Your task to perform on an android device: What's on my calendar tomorrow? Image 0: 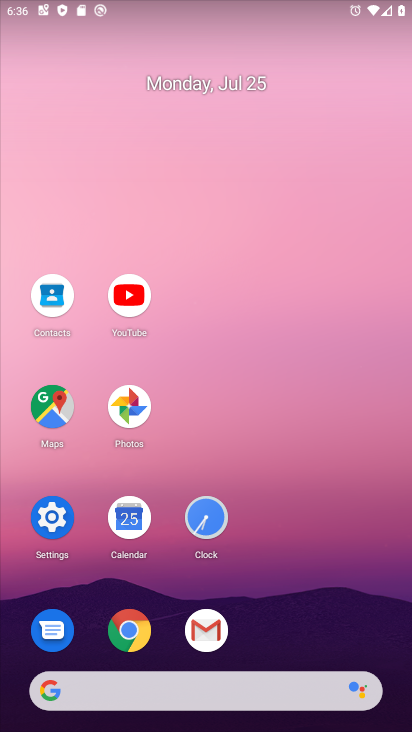
Step 0: click (131, 515)
Your task to perform on an android device: What's on my calendar tomorrow? Image 1: 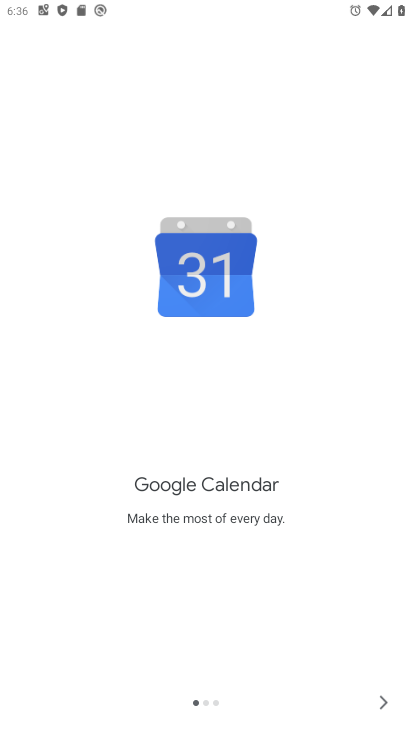
Step 1: click (382, 705)
Your task to perform on an android device: What's on my calendar tomorrow? Image 2: 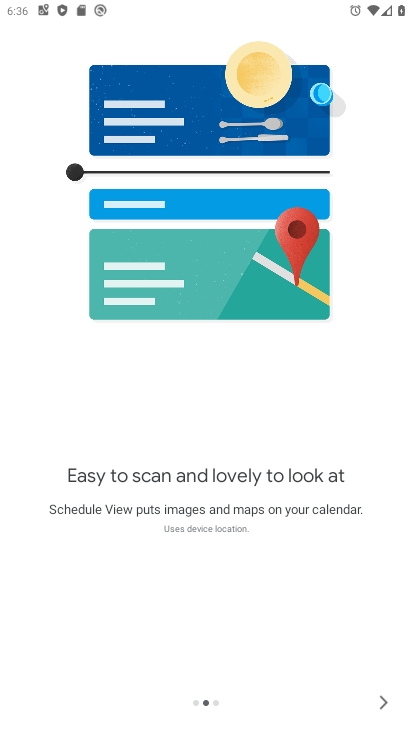
Step 2: click (382, 705)
Your task to perform on an android device: What's on my calendar tomorrow? Image 3: 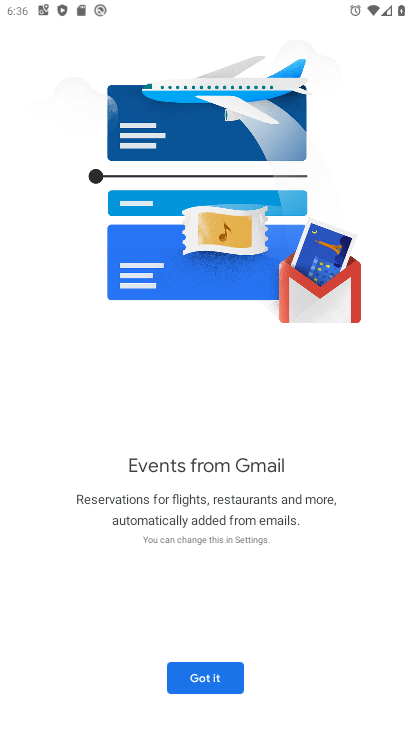
Step 3: click (209, 676)
Your task to perform on an android device: What's on my calendar tomorrow? Image 4: 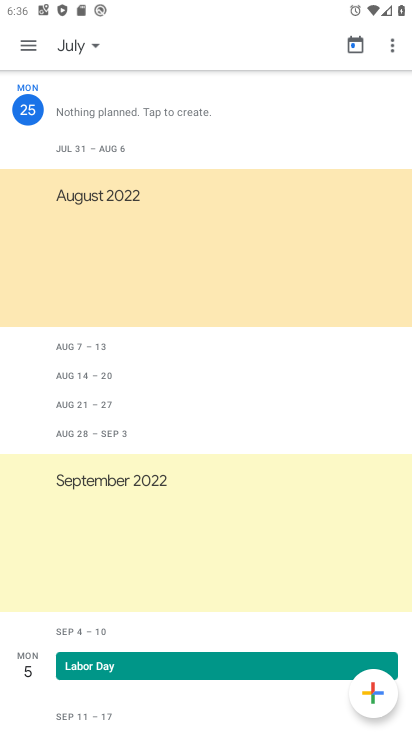
Step 4: click (97, 44)
Your task to perform on an android device: What's on my calendar tomorrow? Image 5: 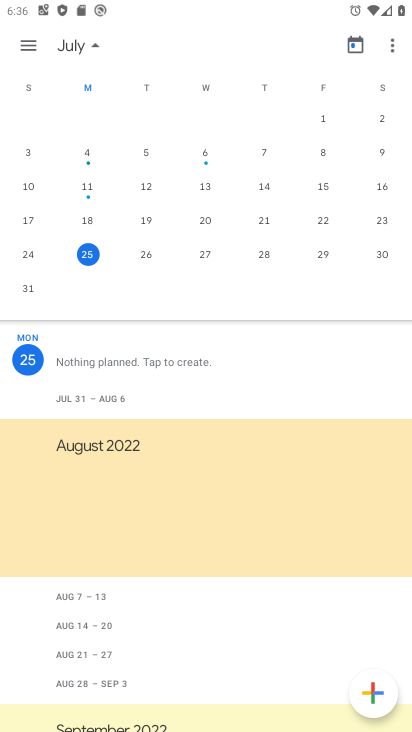
Step 5: click (141, 249)
Your task to perform on an android device: What's on my calendar tomorrow? Image 6: 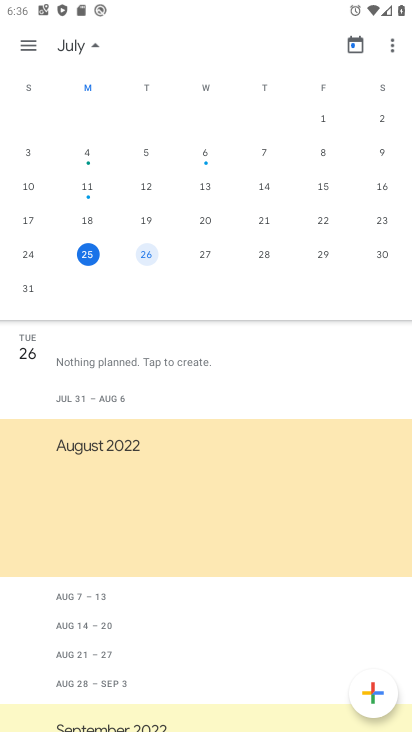
Step 6: click (147, 253)
Your task to perform on an android device: What's on my calendar tomorrow? Image 7: 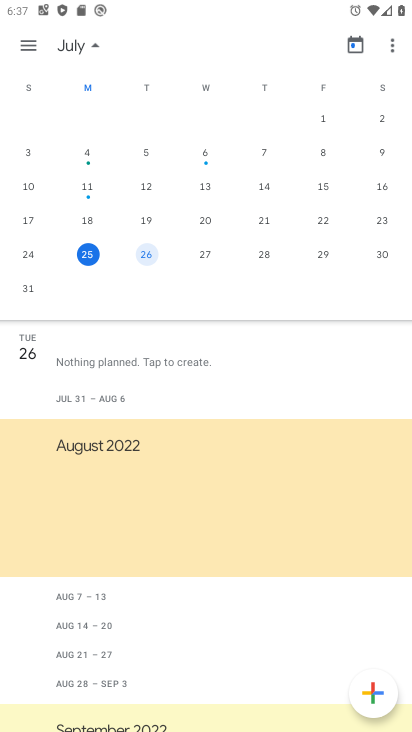
Step 7: click (22, 43)
Your task to perform on an android device: What's on my calendar tomorrow? Image 8: 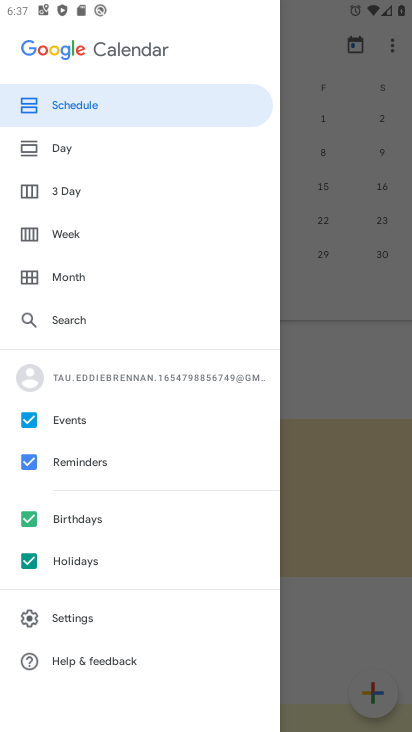
Step 8: click (55, 149)
Your task to perform on an android device: What's on my calendar tomorrow? Image 9: 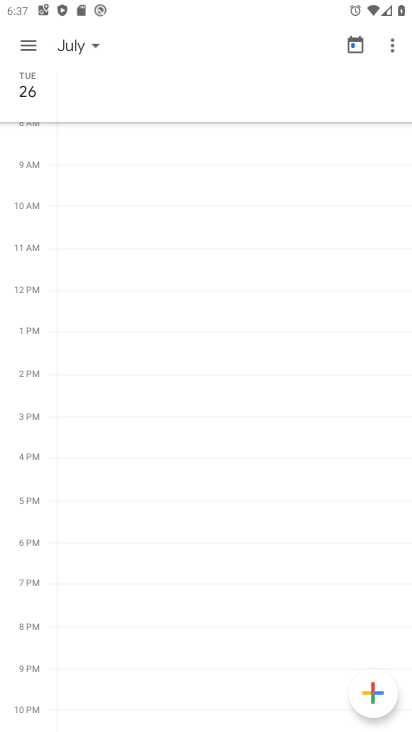
Step 9: task complete